Your task to perform on an android device: open chrome privacy settings Image 0: 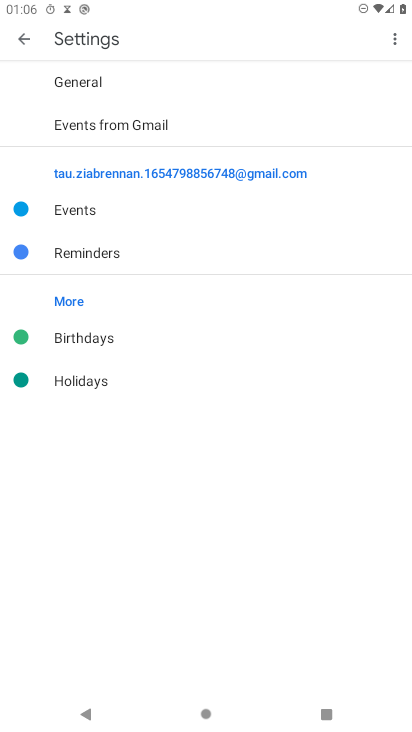
Step 0: press home button
Your task to perform on an android device: open chrome privacy settings Image 1: 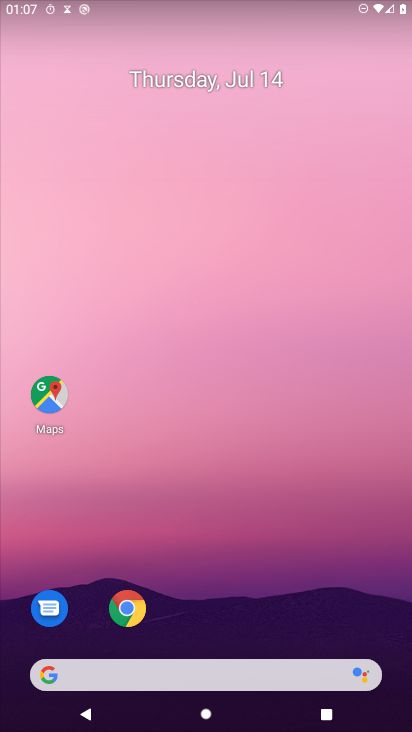
Step 1: click (130, 601)
Your task to perform on an android device: open chrome privacy settings Image 2: 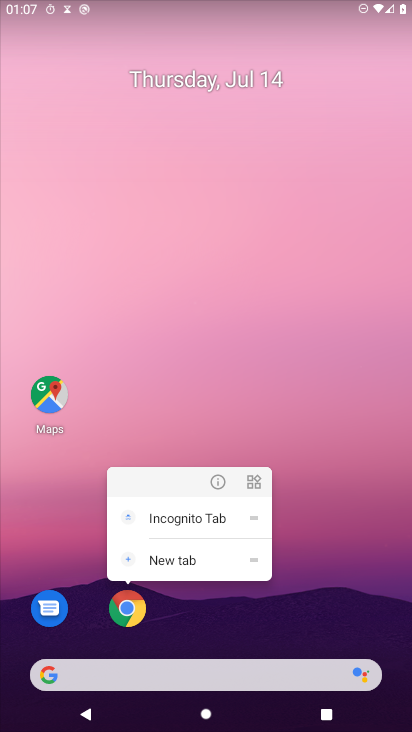
Step 2: click (119, 603)
Your task to perform on an android device: open chrome privacy settings Image 3: 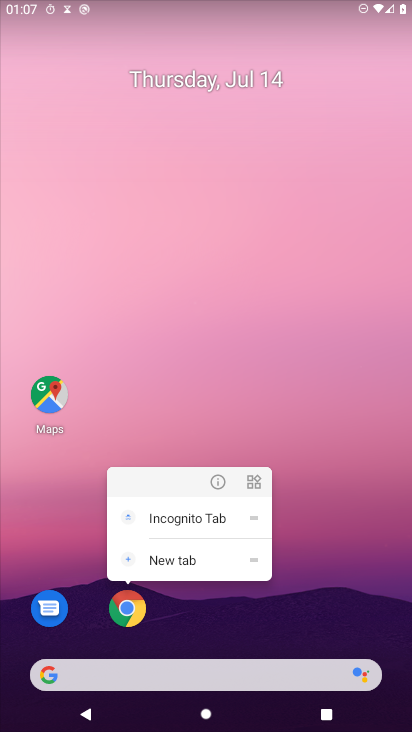
Step 3: click (119, 603)
Your task to perform on an android device: open chrome privacy settings Image 4: 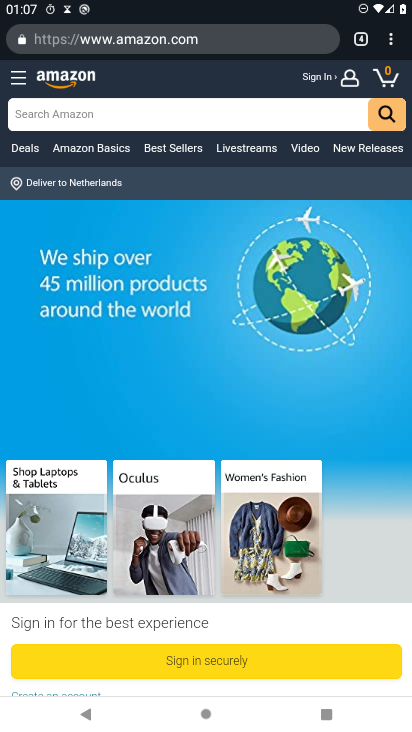
Step 4: drag from (385, 44) to (282, 479)
Your task to perform on an android device: open chrome privacy settings Image 5: 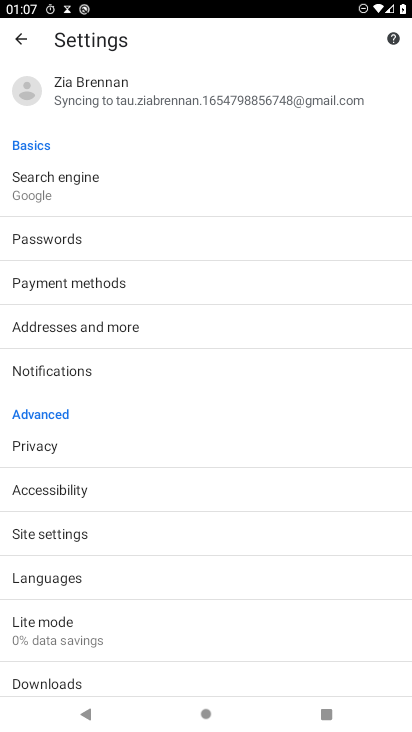
Step 5: click (34, 439)
Your task to perform on an android device: open chrome privacy settings Image 6: 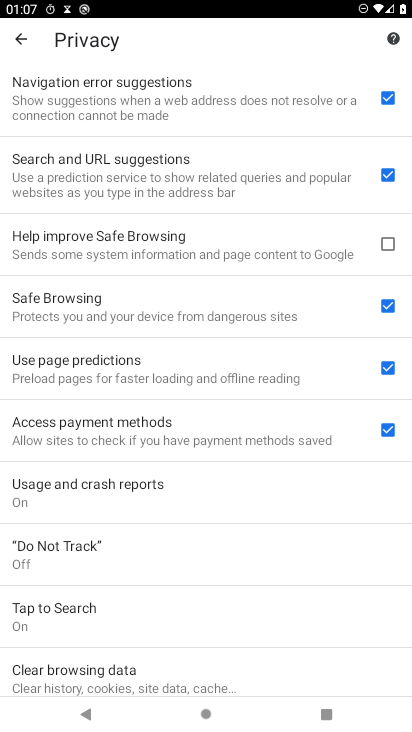
Step 6: task complete